Your task to perform on an android device: See recent photos Image 0: 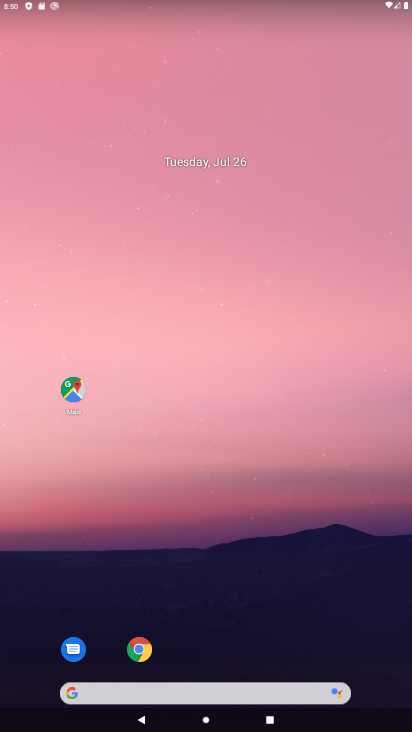
Step 0: drag from (335, 611) to (329, 113)
Your task to perform on an android device: See recent photos Image 1: 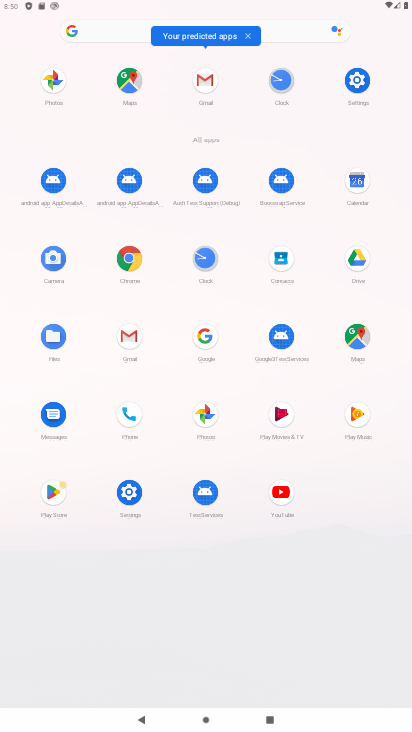
Step 1: click (205, 413)
Your task to perform on an android device: See recent photos Image 2: 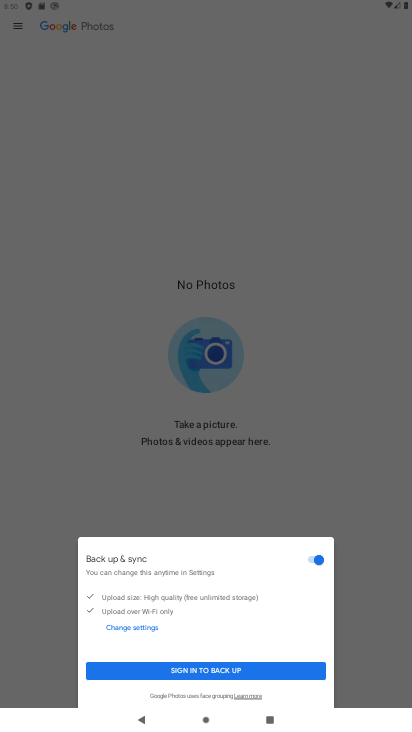
Step 2: click (258, 675)
Your task to perform on an android device: See recent photos Image 3: 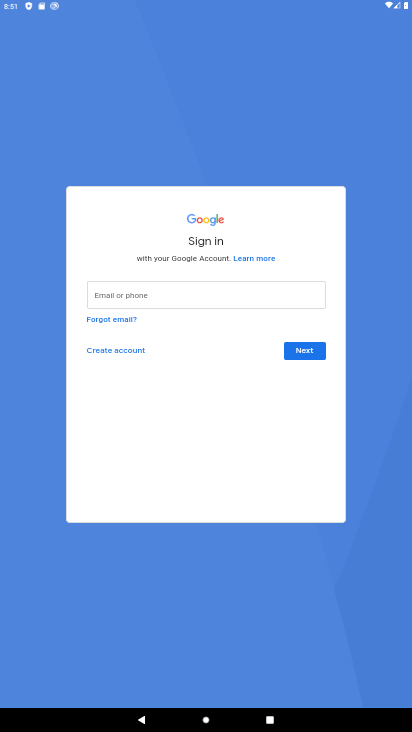
Step 3: task complete